Your task to perform on an android device: Clear the shopping cart on newegg. Add alienware aurora to the cart on newegg, then select checkout. Image 0: 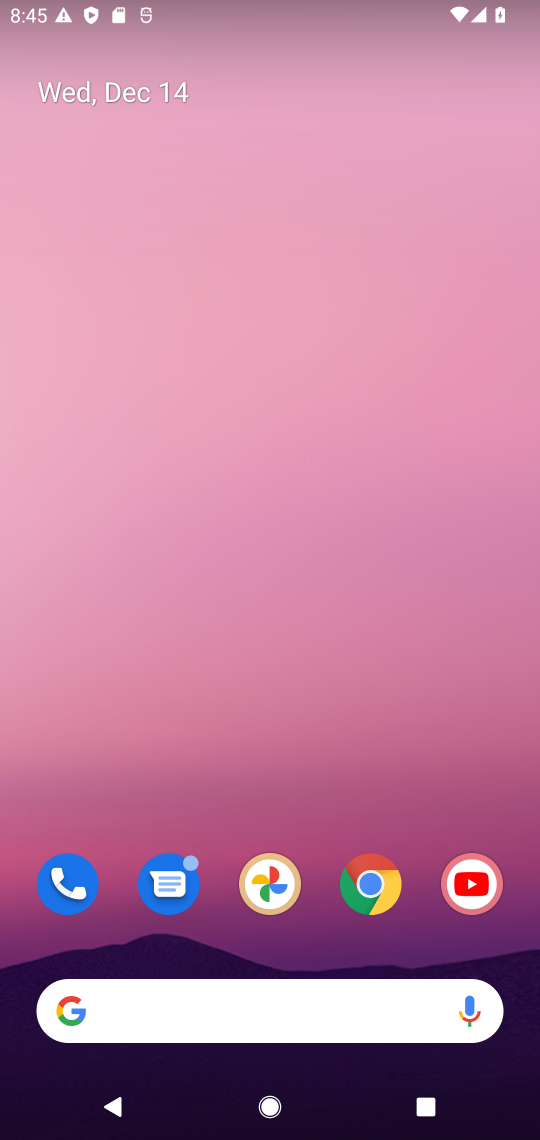
Step 0: click (376, 882)
Your task to perform on an android device: Clear the shopping cart on newegg. Add alienware aurora to the cart on newegg, then select checkout. Image 1: 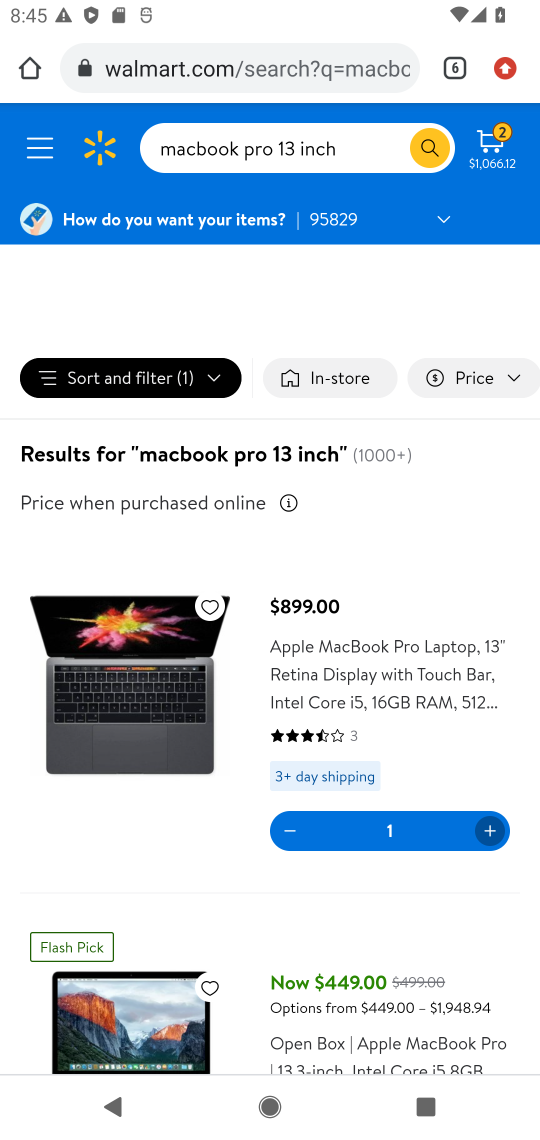
Step 1: click (450, 72)
Your task to perform on an android device: Clear the shopping cart on newegg. Add alienware aurora to the cart on newegg, then select checkout. Image 2: 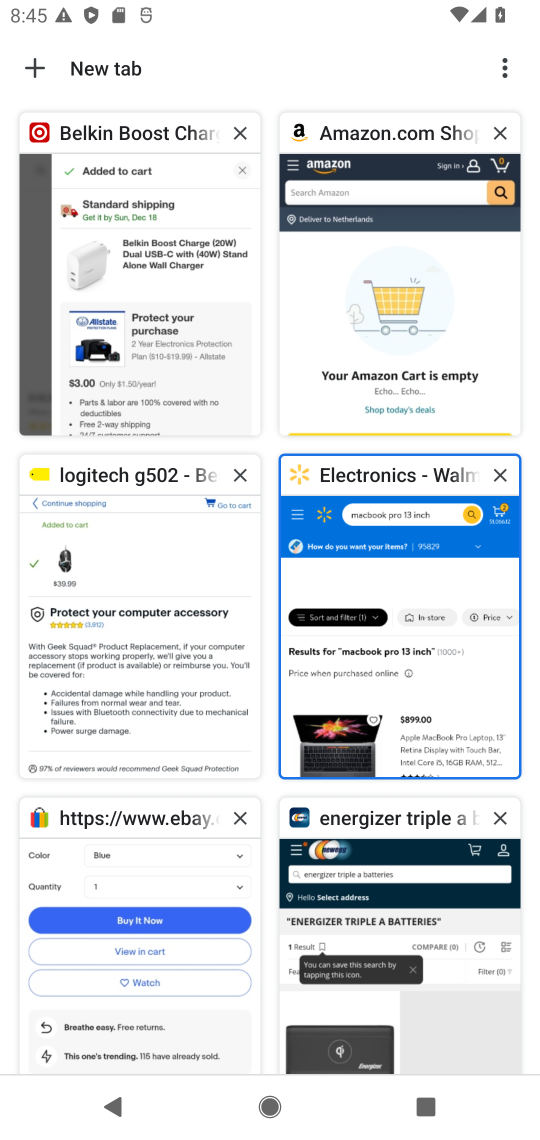
Step 2: click (357, 925)
Your task to perform on an android device: Clear the shopping cart on newegg. Add alienware aurora to the cart on newegg, then select checkout. Image 3: 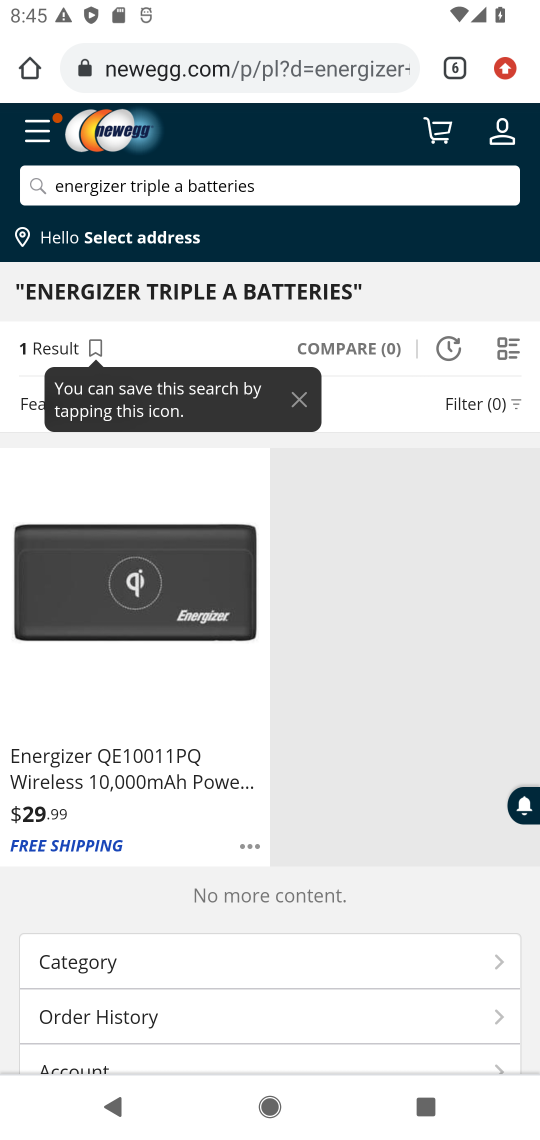
Step 3: click (273, 186)
Your task to perform on an android device: Clear the shopping cart on newegg. Add alienware aurora to the cart on newegg, then select checkout. Image 4: 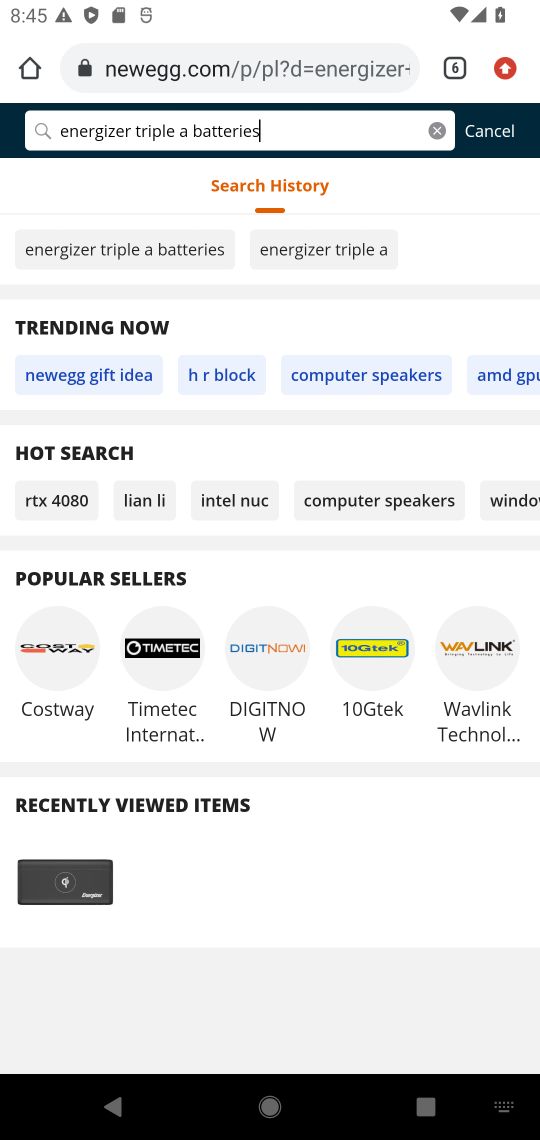
Step 4: click (435, 131)
Your task to perform on an android device: Clear the shopping cart on newegg. Add alienware aurora to the cart on newegg, then select checkout. Image 5: 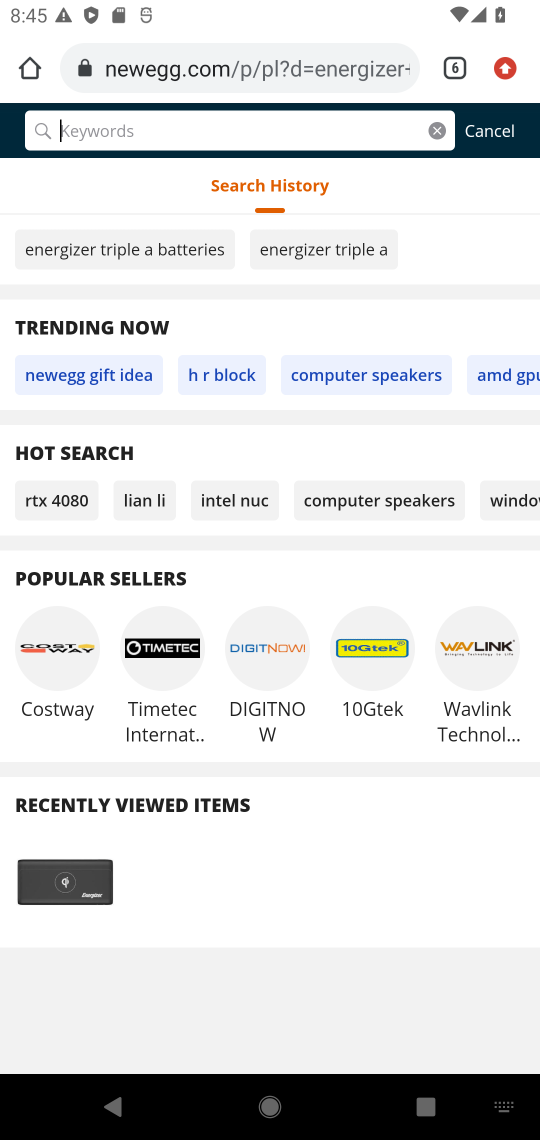
Step 5: type "alienware aurora"
Your task to perform on an android device: Clear the shopping cart on newegg. Add alienware aurora to the cart on newegg, then select checkout. Image 6: 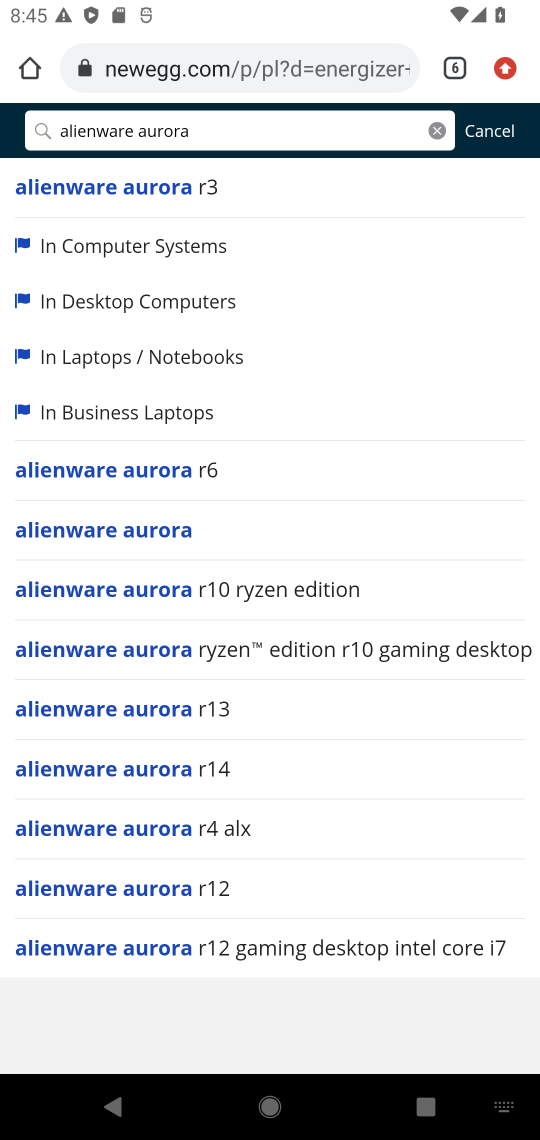
Step 6: click (84, 189)
Your task to perform on an android device: Clear the shopping cart on newegg. Add alienware aurora to the cart on newegg, then select checkout. Image 7: 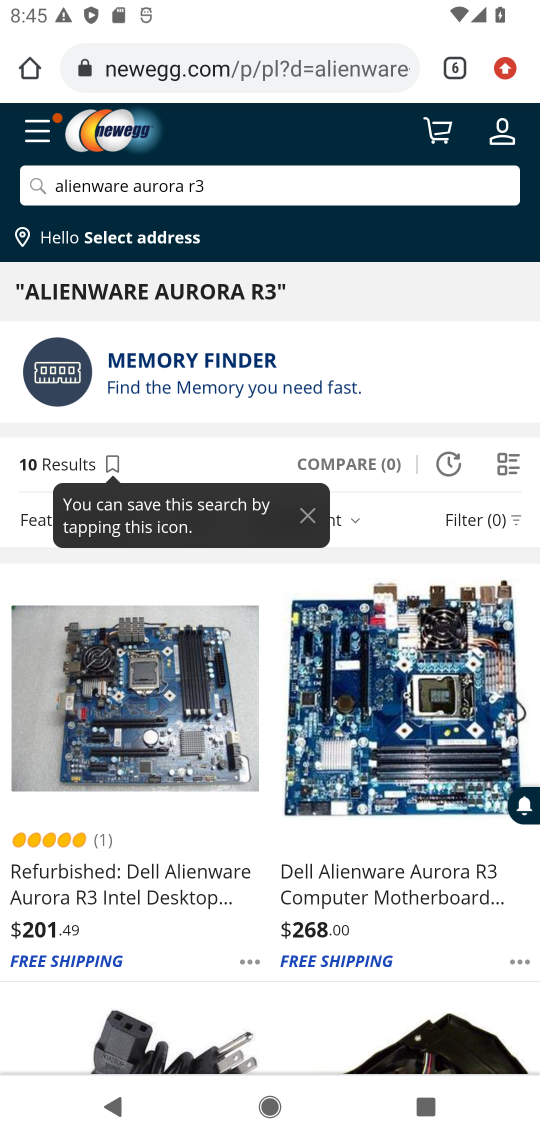
Step 7: click (161, 874)
Your task to perform on an android device: Clear the shopping cart on newegg. Add alienware aurora to the cart on newegg, then select checkout. Image 8: 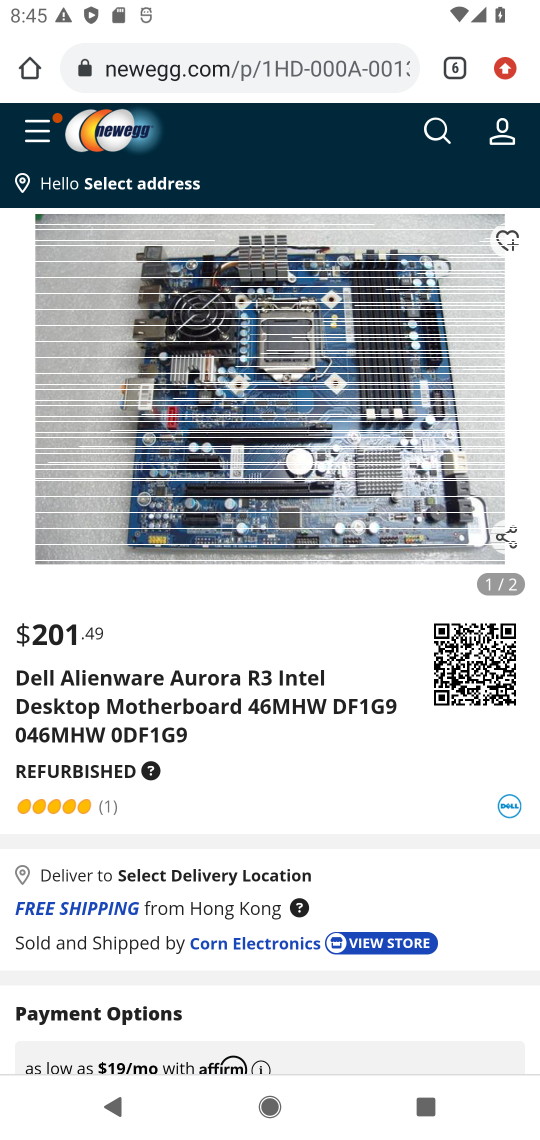
Step 8: click (258, 1051)
Your task to perform on an android device: Clear the shopping cart on newegg. Add alienware aurora to the cart on newegg, then select checkout. Image 9: 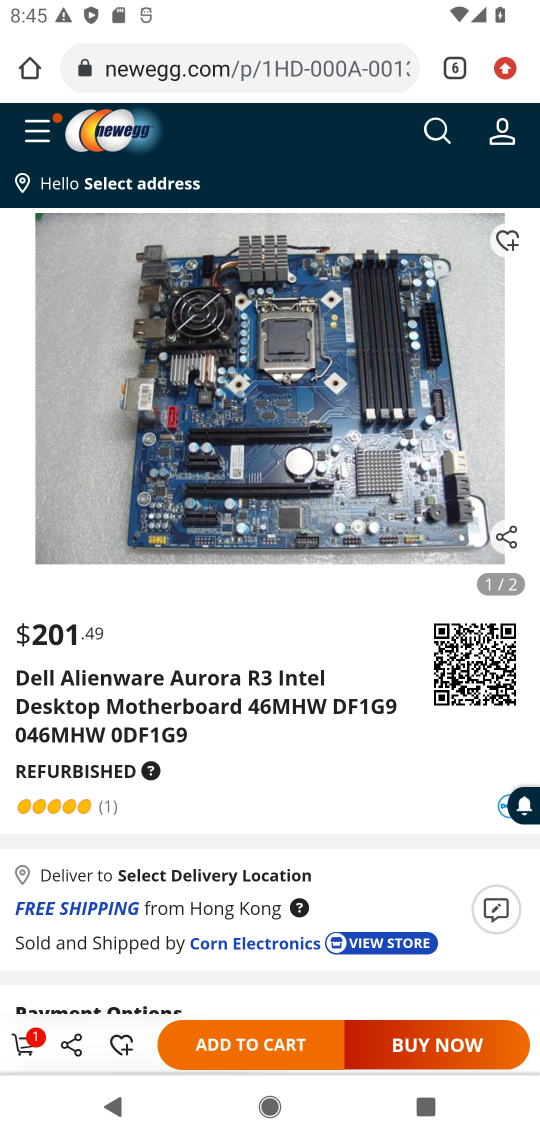
Step 9: click (258, 1051)
Your task to perform on an android device: Clear the shopping cart on newegg. Add alienware aurora to the cart on newegg, then select checkout. Image 10: 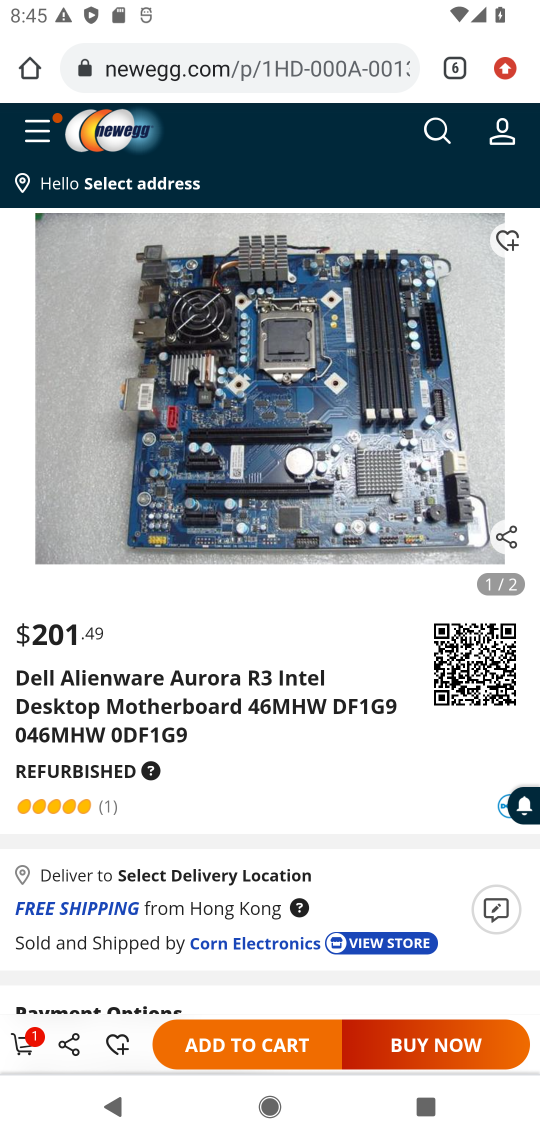
Step 10: task complete